Your task to perform on an android device: Go to CNN.com Image 0: 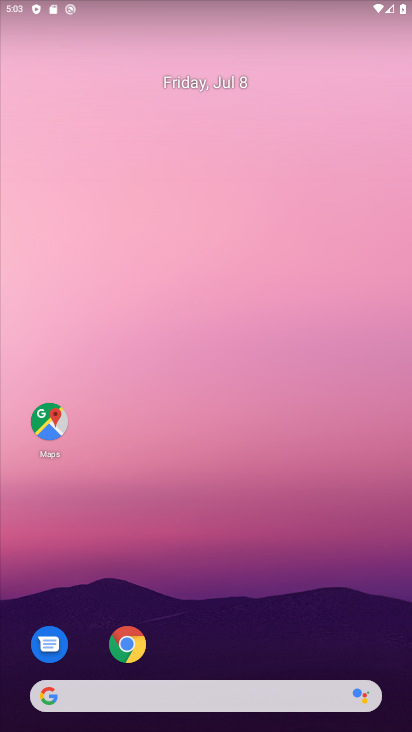
Step 0: click (74, 699)
Your task to perform on an android device: Go to CNN.com Image 1: 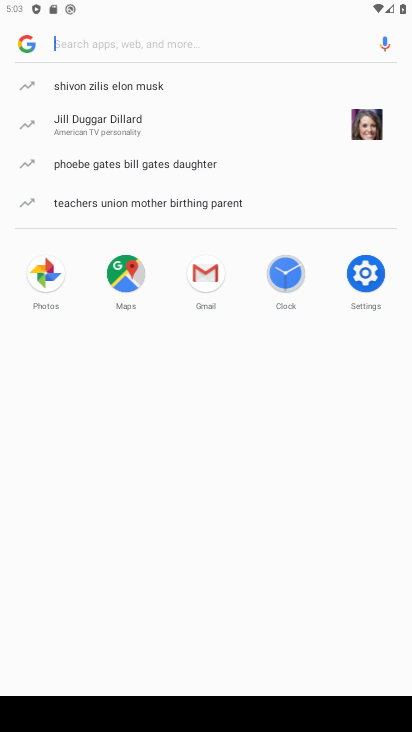
Step 1: type "cnn.com"
Your task to perform on an android device: Go to CNN.com Image 2: 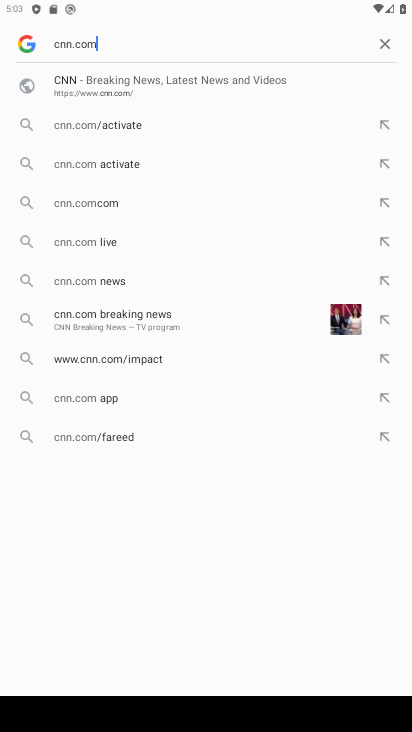
Step 2: press enter
Your task to perform on an android device: Go to CNN.com Image 3: 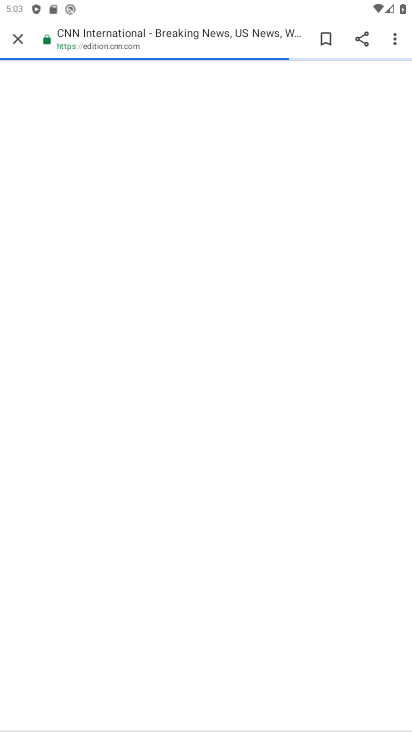
Step 3: task complete